Your task to perform on an android device: Do I have any events this weekend? Image 0: 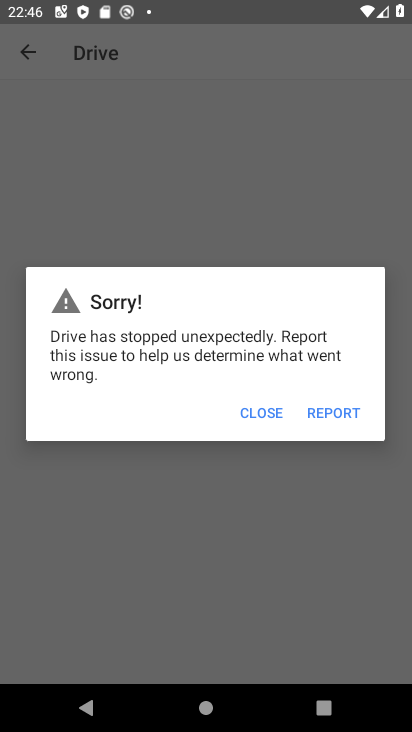
Step 0: press home button
Your task to perform on an android device: Do I have any events this weekend? Image 1: 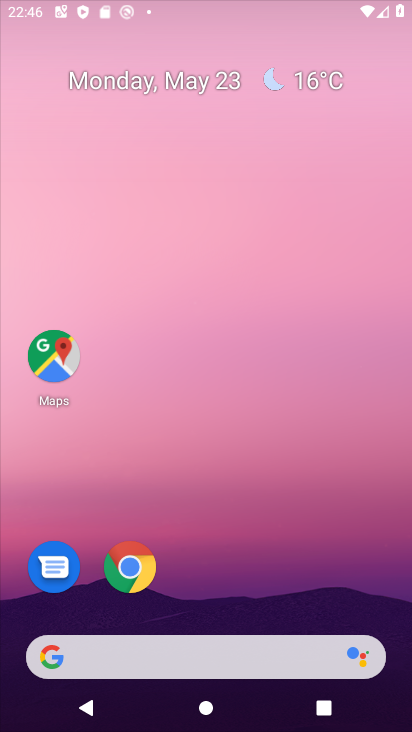
Step 1: drag from (198, 649) to (186, 0)
Your task to perform on an android device: Do I have any events this weekend? Image 2: 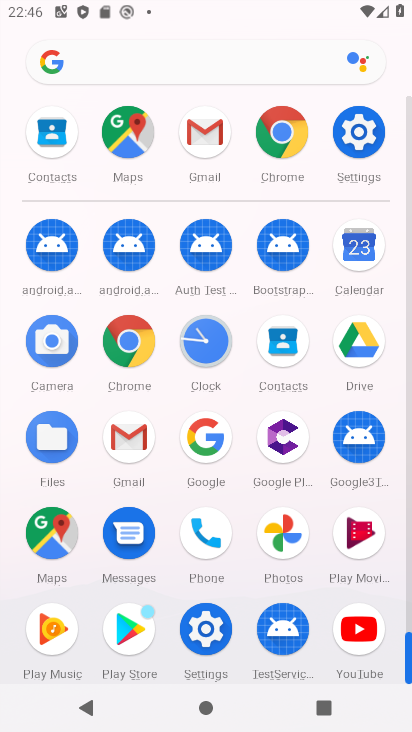
Step 2: click (360, 251)
Your task to perform on an android device: Do I have any events this weekend? Image 3: 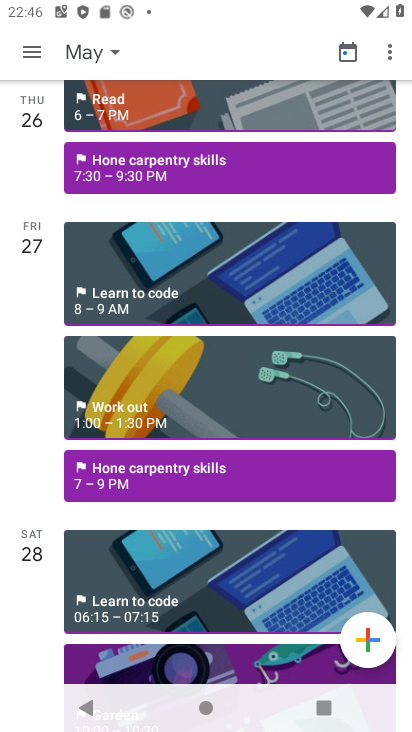
Step 3: drag from (240, 169) to (314, 727)
Your task to perform on an android device: Do I have any events this weekend? Image 4: 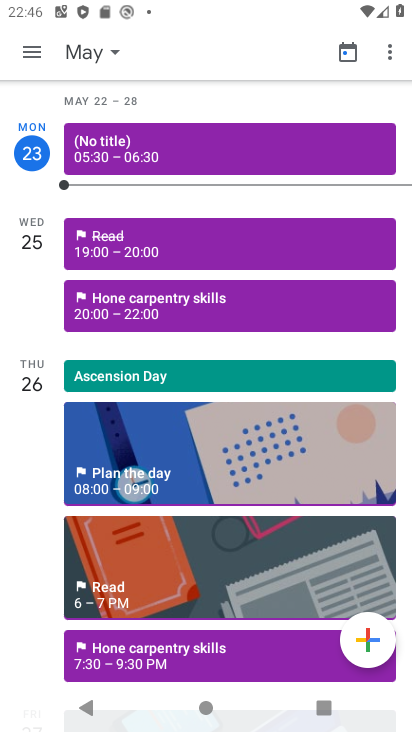
Step 4: drag from (219, 535) to (249, 14)
Your task to perform on an android device: Do I have any events this weekend? Image 5: 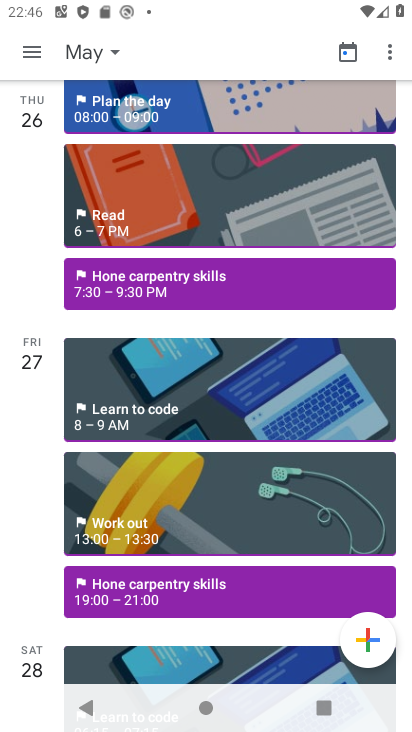
Step 5: drag from (145, 124) to (331, 688)
Your task to perform on an android device: Do I have any events this weekend? Image 6: 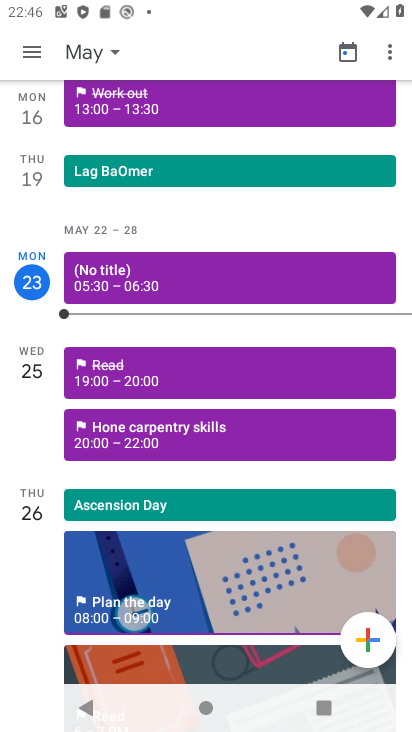
Step 6: click (122, 52)
Your task to perform on an android device: Do I have any events this weekend? Image 7: 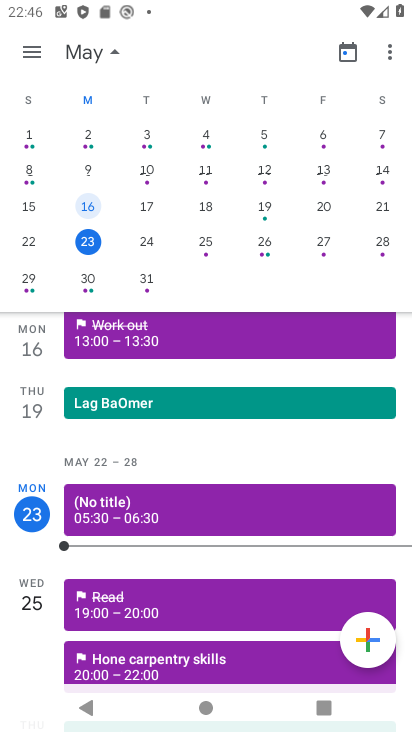
Step 7: click (265, 243)
Your task to perform on an android device: Do I have any events this weekend? Image 8: 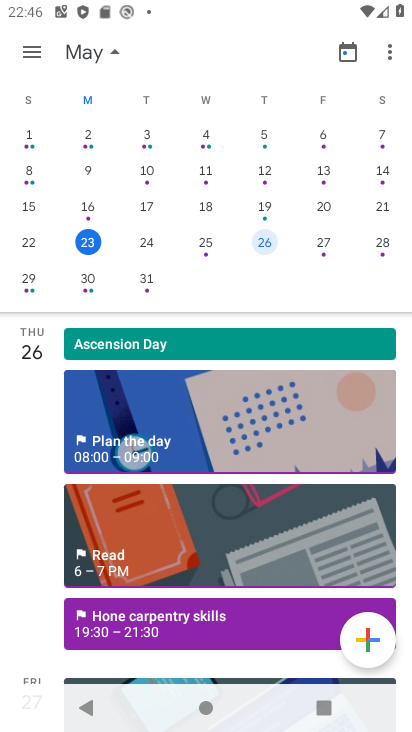
Step 8: task complete